Your task to perform on an android device: Open Youtube and go to the subscriptions tab Image 0: 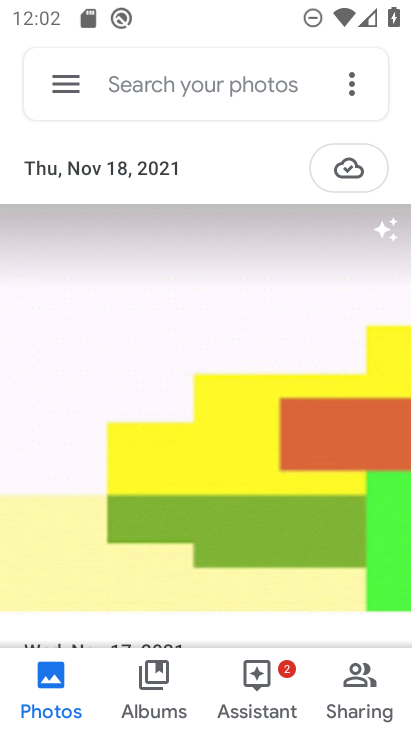
Step 0: press home button
Your task to perform on an android device: Open Youtube and go to the subscriptions tab Image 1: 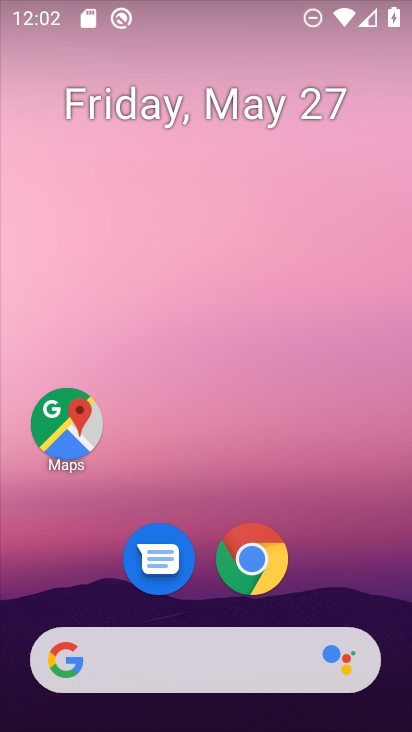
Step 1: drag from (343, 577) to (349, 36)
Your task to perform on an android device: Open Youtube and go to the subscriptions tab Image 2: 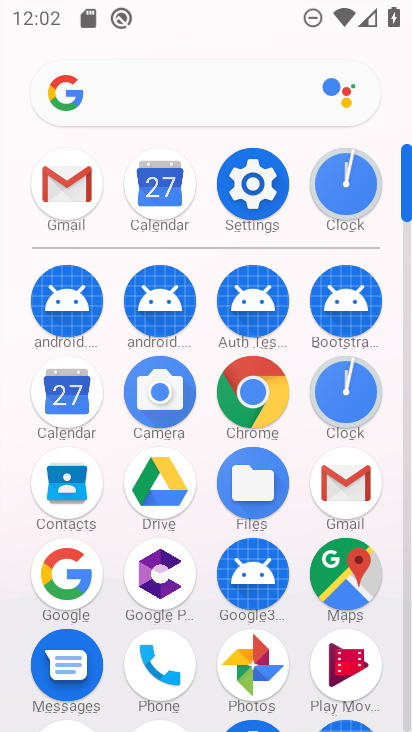
Step 2: drag from (312, 667) to (411, 278)
Your task to perform on an android device: Open Youtube and go to the subscriptions tab Image 3: 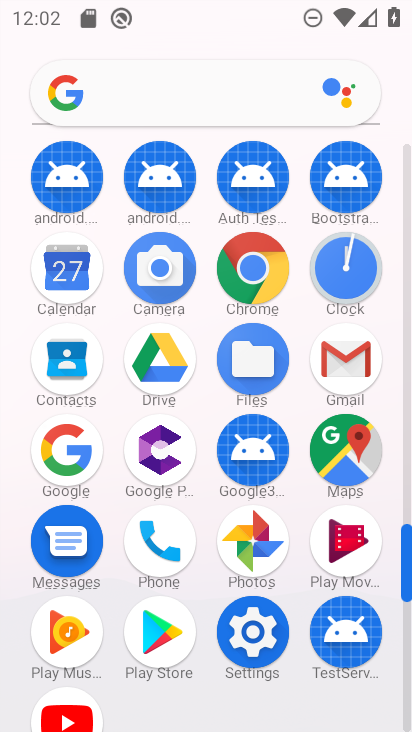
Step 3: click (58, 711)
Your task to perform on an android device: Open Youtube and go to the subscriptions tab Image 4: 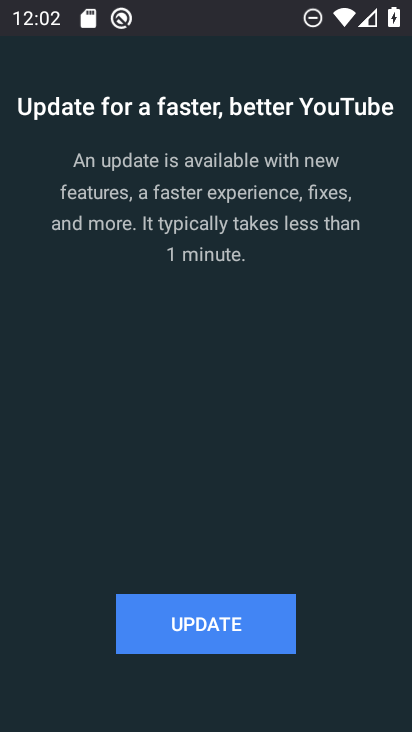
Step 4: click (202, 627)
Your task to perform on an android device: Open Youtube and go to the subscriptions tab Image 5: 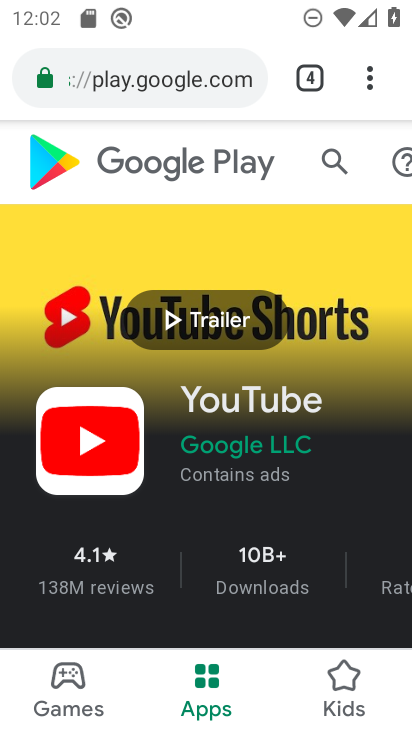
Step 5: drag from (292, 488) to (342, 206)
Your task to perform on an android device: Open Youtube and go to the subscriptions tab Image 6: 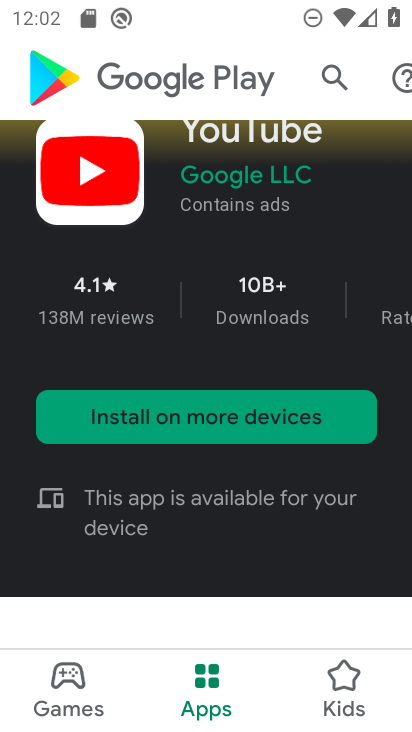
Step 6: click (188, 419)
Your task to perform on an android device: Open Youtube and go to the subscriptions tab Image 7: 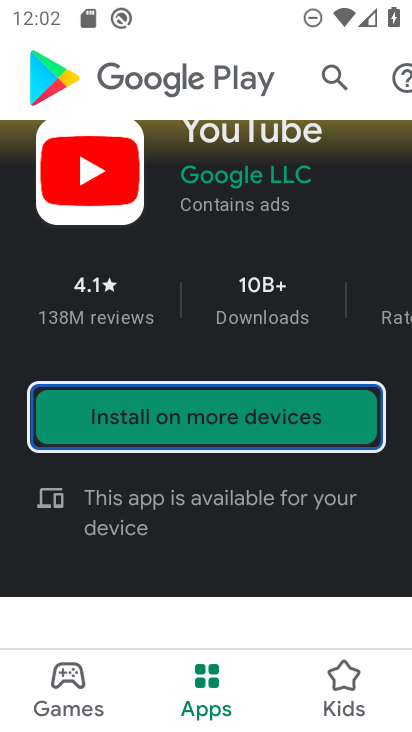
Step 7: task complete